Your task to perform on an android device: Check the weather Image 0: 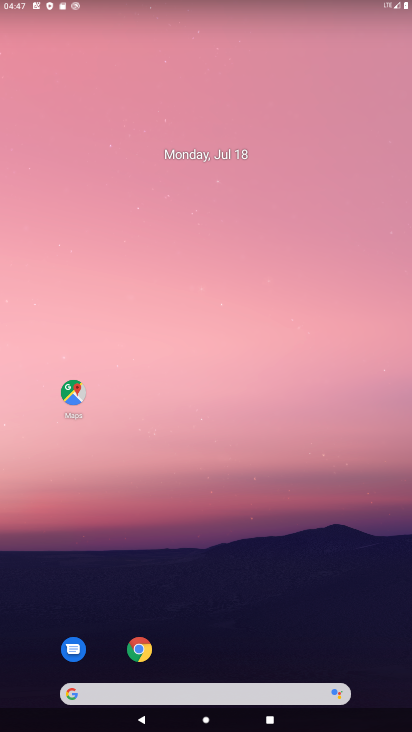
Step 0: click (174, 694)
Your task to perform on an android device: Check the weather Image 1: 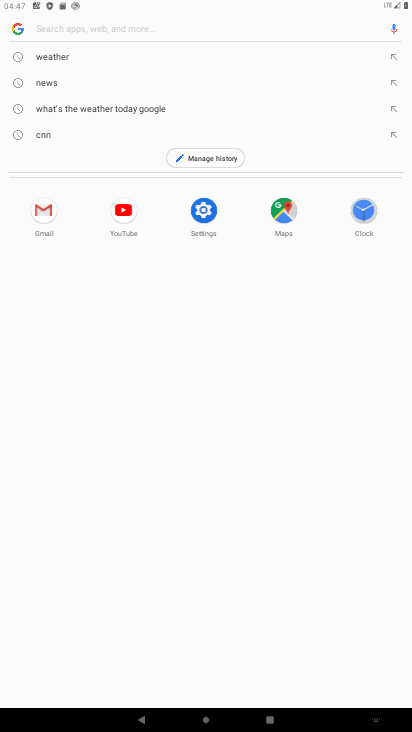
Step 1: click (50, 61)
Your task to perform on an android device: Check the weather Image 2: 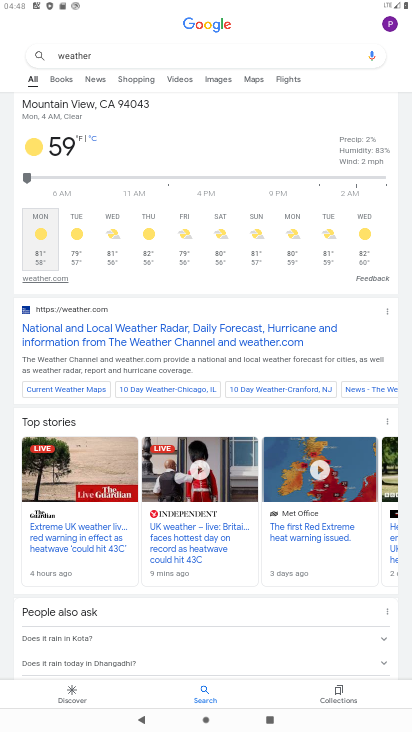
Step 2: task complete